Your task to perform on an android device: change your default location settings in chrome Image 0: 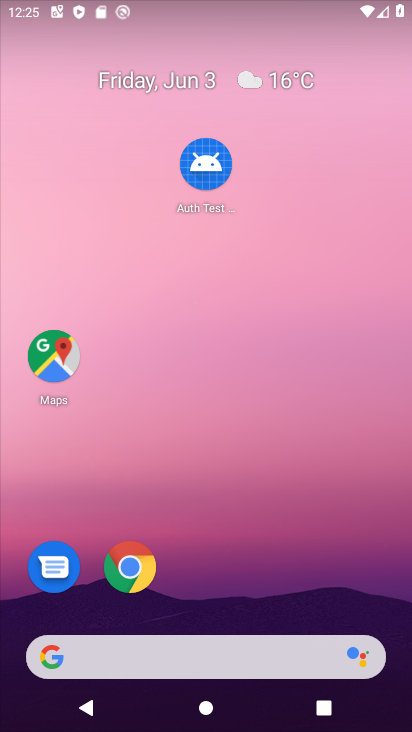
Step 0: drag from (195, 616) to (228, 125)
Your task to perform on an android device: change your default location settings in chrome Image 1: 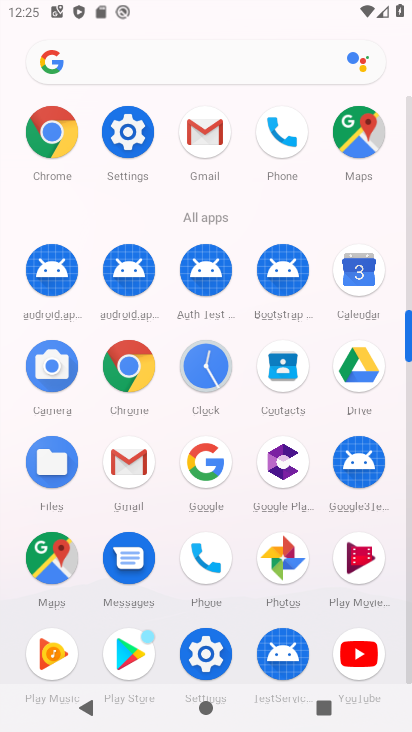
Step 1: click (40, 138)
Your task to perform on an android device: change your default location settings in chrome Image 2: 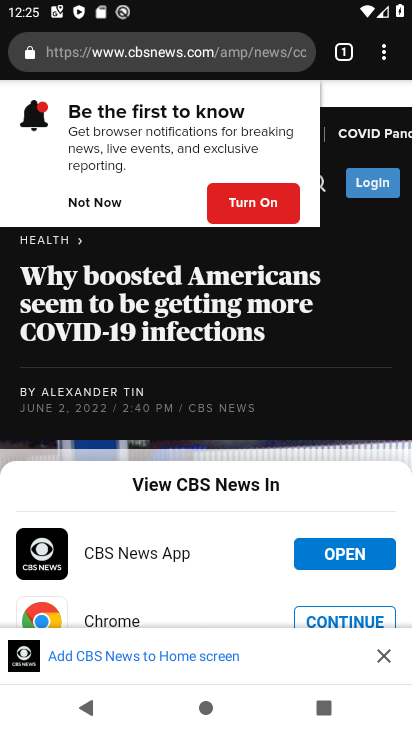
Step 2: click (389, 50)
Your task to perform on an android device: change your default location settings in chrome Image 3: 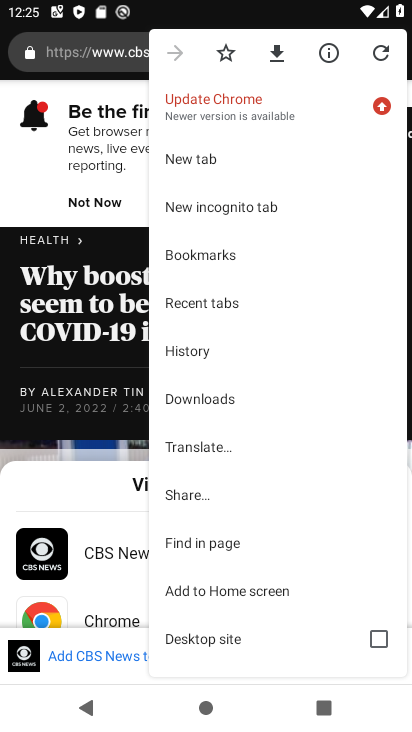
Step 3: drag from (197, 665) to (257, 243)
Your task to perform on an android device: change your default location settings in chrome Image 4: 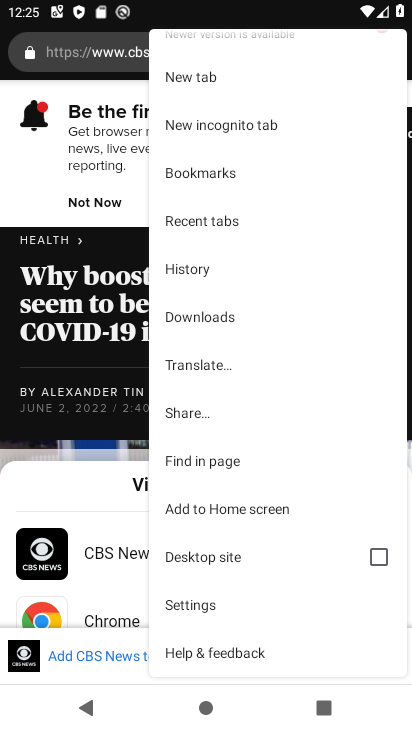
Step 4: click (183, 616)
Your task to perform on an android device: change your default location settings in chrome Image 5: 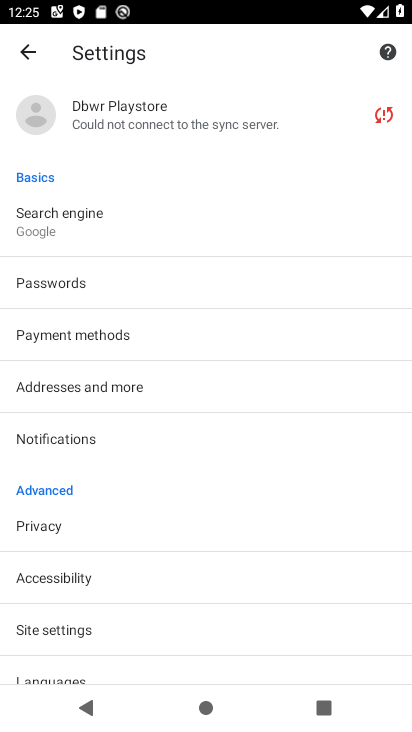
Step 5: drag from (174, 501) to (221, 194)
Your task to perform on an android device: change your default location settings in chrome Image 6: 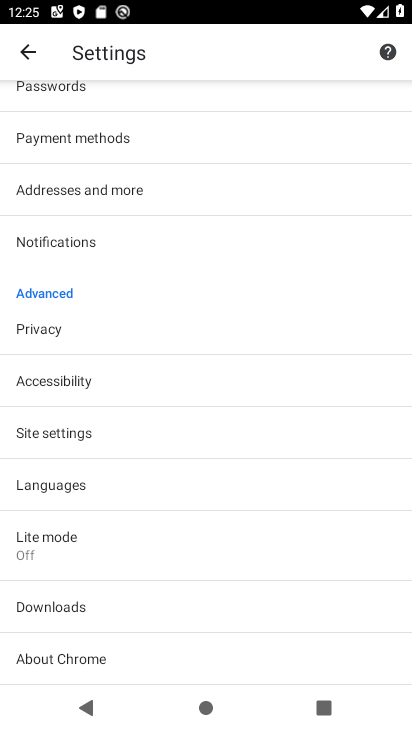
Step 6: drag from (99, 550) to (189, 214)
Your task to perform on an android device: change your default location settings in chrome Image 7: 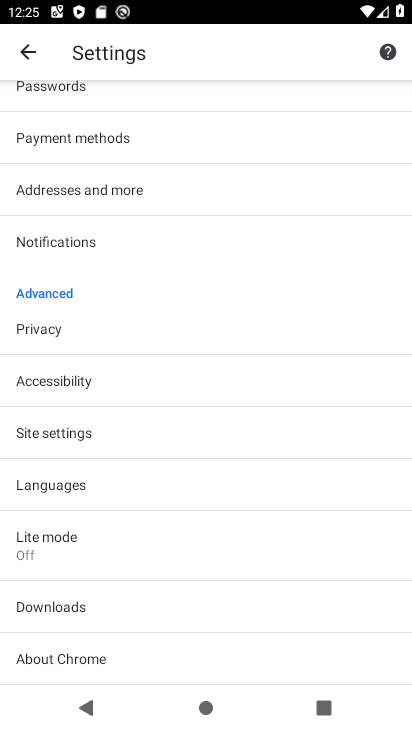
Step 7: drag from (202, 199) to (199, 636)
Your task to perform on an android device: change your default location settings in chrome Image 8: 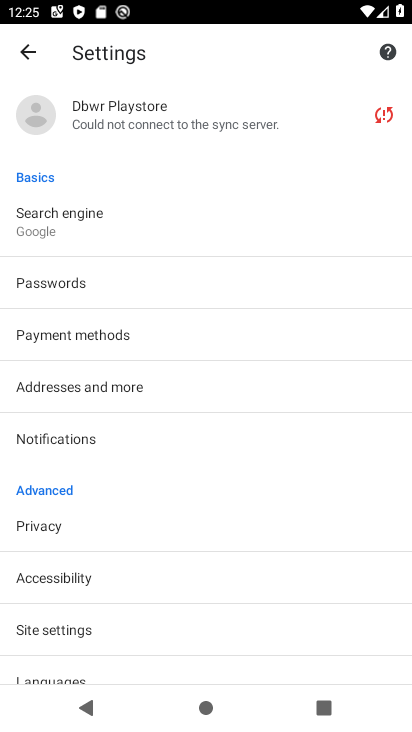
Step 8: drag from (199, 636) to (266, 281)
Your task to perform on an android device: change your default location settings in chrome Image 9: 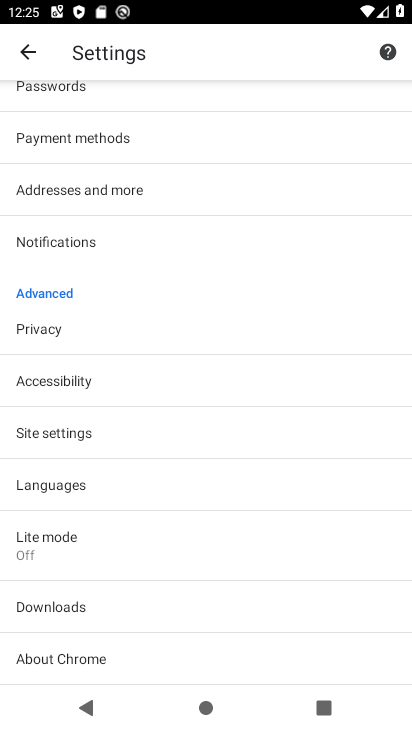
Step 9: click (92, 440)
Your task to perform on an android device: change your default location settings in chrome Image 10: 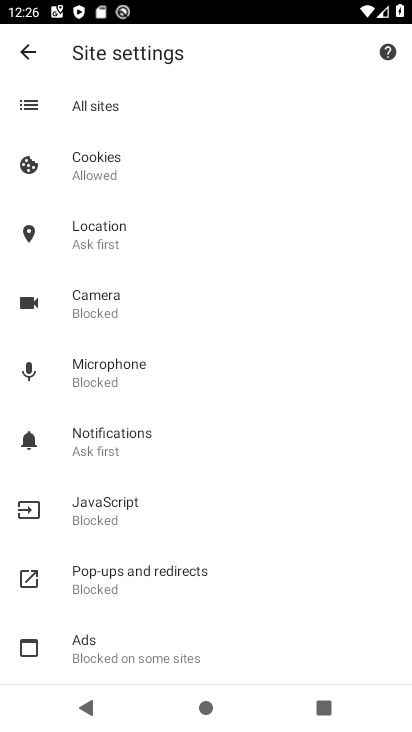
Step 10: click (151, 219)
Your task to perform on an android device: change your default location settings in chrome Image 11: 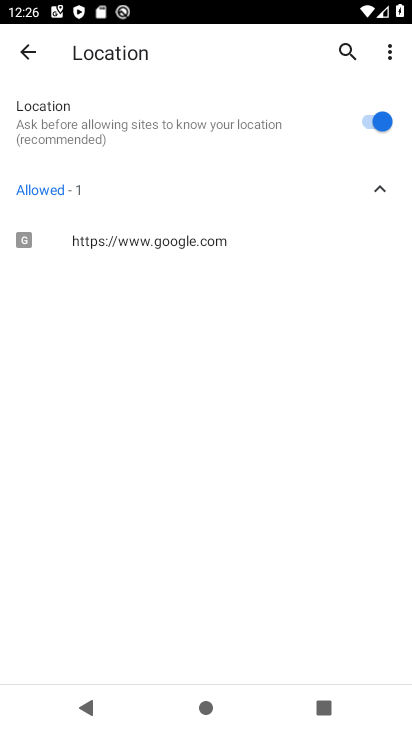
Step 11: click (397, 48)
Your task to perform on an android device: change your default location settings in chrome Image 12: 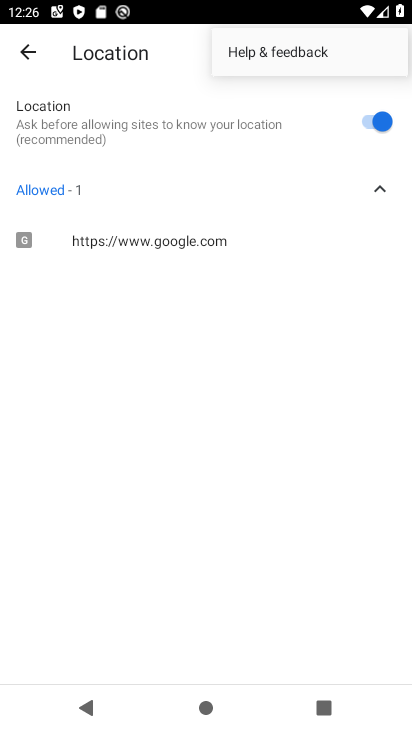
Step 12: click (62, 280)
Your task to perform on an android device: change your default location settings in chrome Image 13: 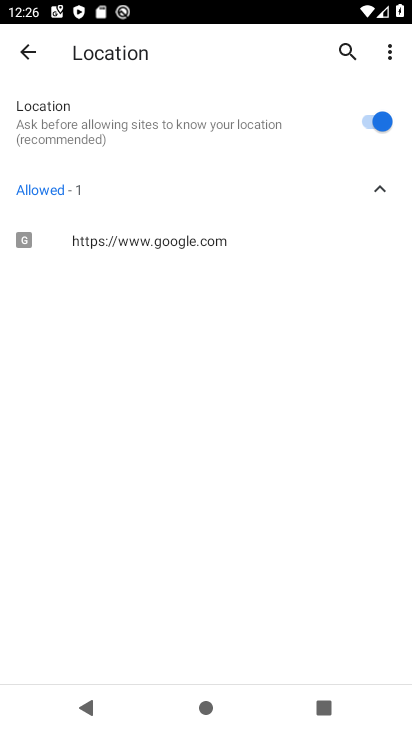
Step 13: click (379, 120)
Your task to perform on an android device: change your default location settings in chrome Image 14: 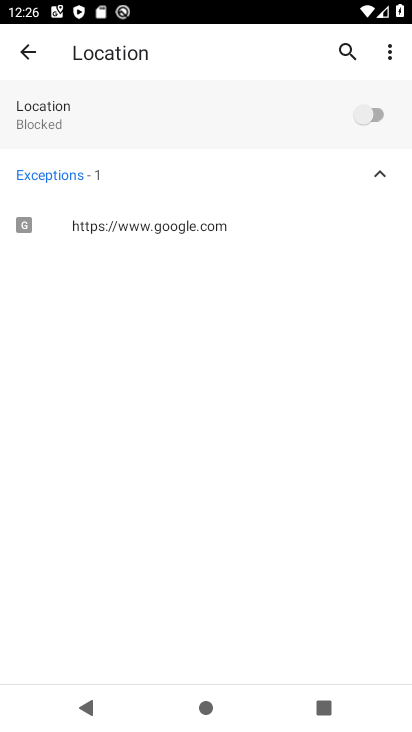
Step 14: task complete